Your task to perform on an android device: turn off translation in the chrome app Image 0: 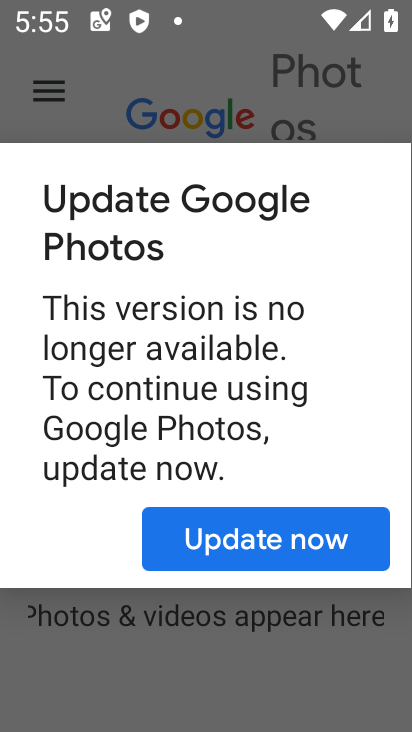
Step 0: press home button
Your task to perform on an android device: turn off translation in the chrome app Image 1: 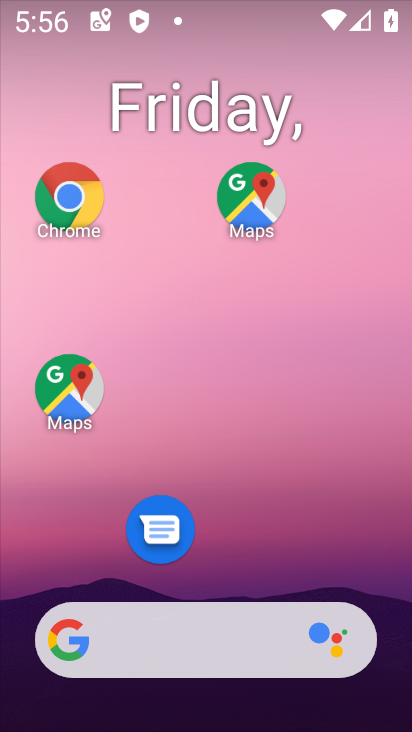
Step 1: click (74, 211)
Your task to perform on an android device: turn off translation in the chrome app Image 2: 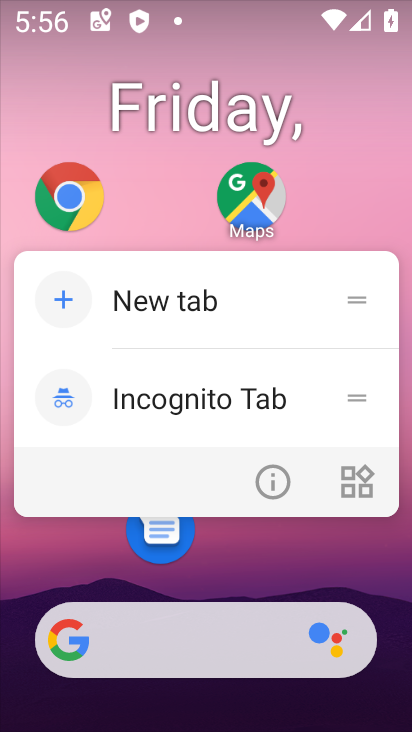
Step 2: click (76, 197)
Your task to perform on an android device: turn off translation in the chrome app Image 3: 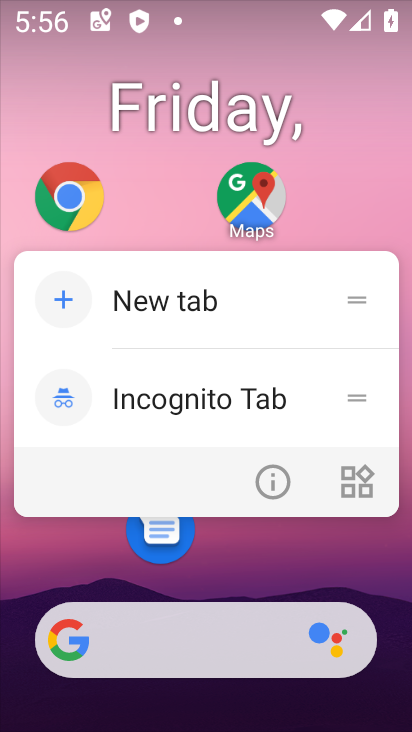
Step 3: click (76, 197)
Your task to perform on an android device: turn off translation in the chrome app Image 4: 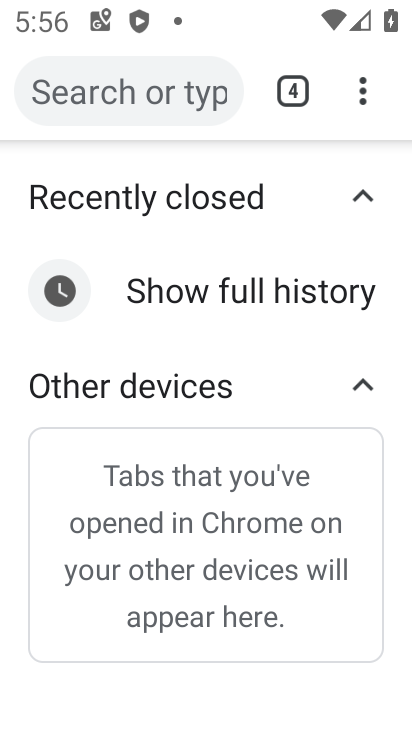
Step 4: click (361, 99)
Your task to perform on an android device: turn off translation in the chrome app Image 5: 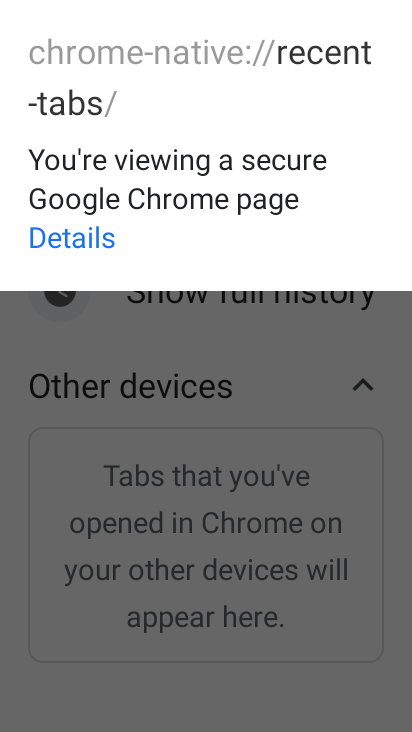
Step 5: click (172, 348)
Your task to perform on an android device: turn off translation in the chrome app Image 6: 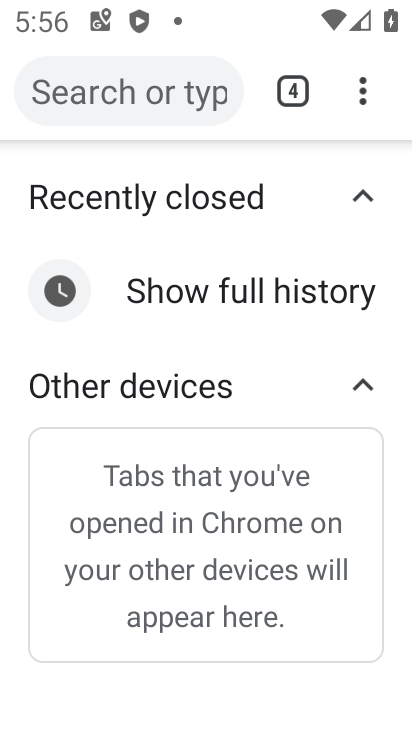
Step 6: click (364, 103)
Your task to perform on an android device: turn off translation in the chrome app Image 7: 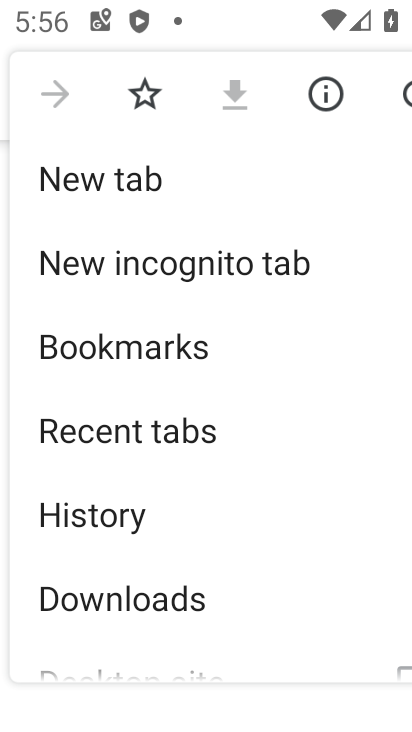
Step 7: drag from (205, 620) to (225, 215)
Your task to perform on an android device: turn off translation in the chrome app Image 8: 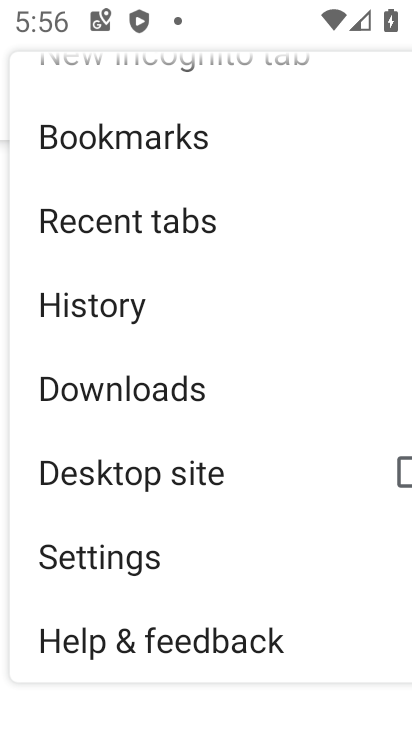
Step 8: click (112, 555)
Your task to perform on an android device: turn off translation in the chrome app Image 9: 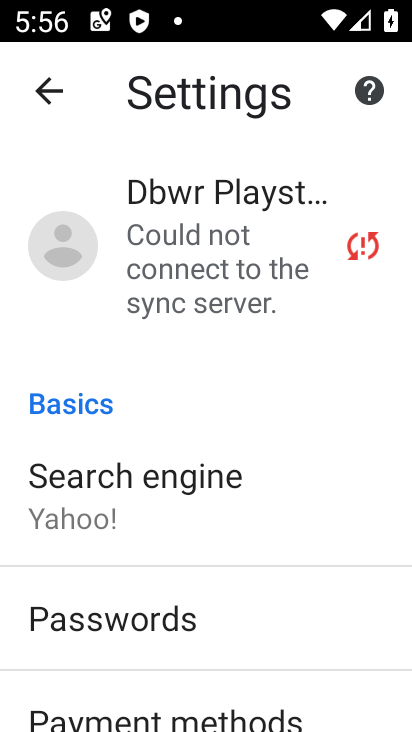
Step 9: drag from (145, 662) to (226, 268)
Your task to perform on an android device: turn off translation in the chrome app Image 10: 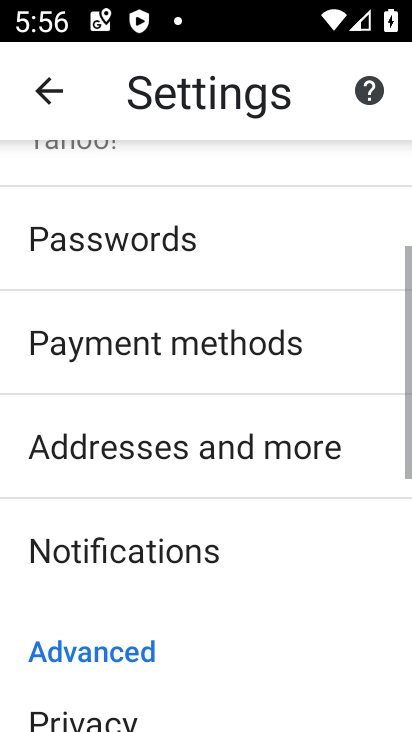
Step 10: drag from (194, 598) to (252, 194)
Your task to perform on an android device: turn off translation in the chrome app Image 11: 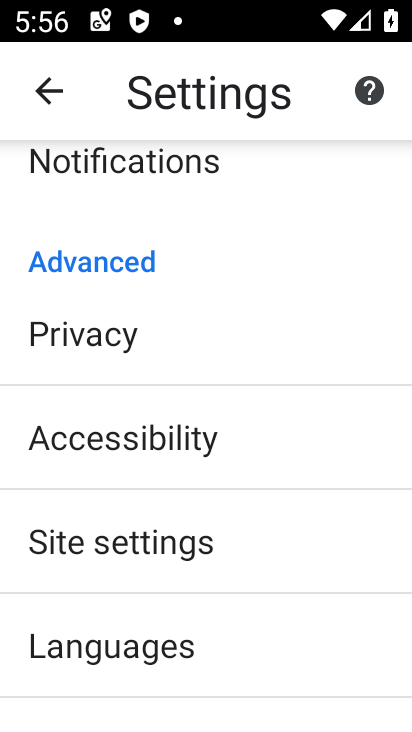
Step 11: drag from (253, 391) to (268, 301)
Your task to perform on an android device: turn off translation in the chrome app Image 12: 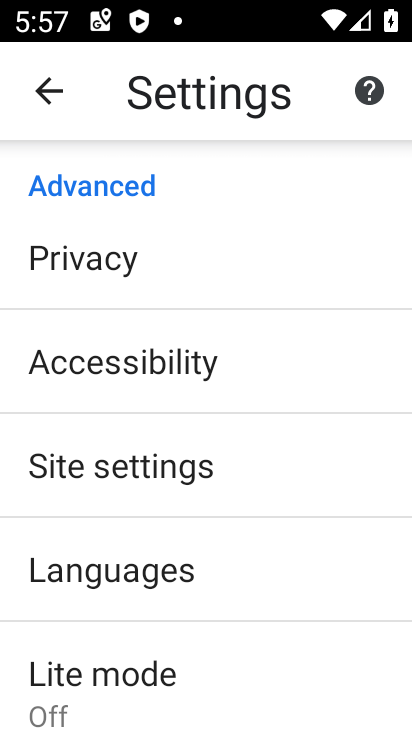
Step 12: click (191, 569)
Your task to perform on an android device: turn off translation in the chrome app Image 13: 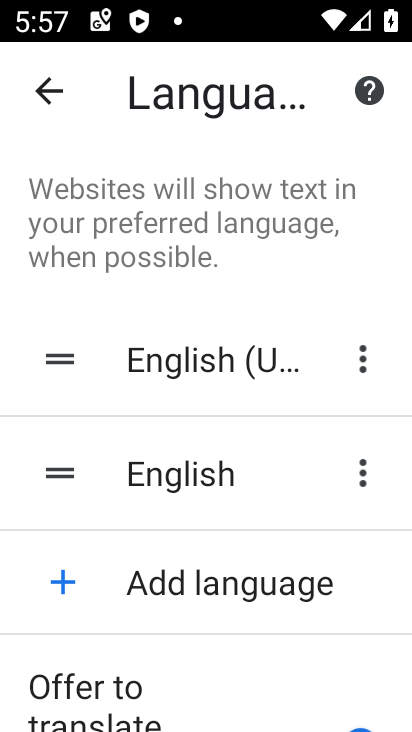
Step 13: drag from (270, 667) to (335, 282)
Your task to perform on an android device: turn off translation in the chrome app Image 14: 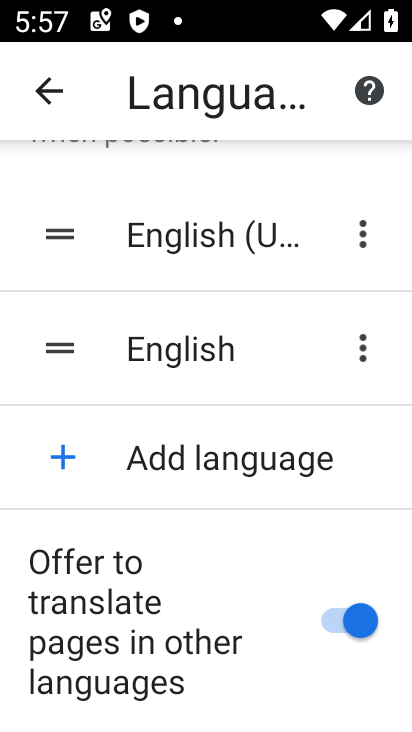
Step 14: click (333, 623)
Your task to perform on an android device: turn off translation in the chrome app Image 15: 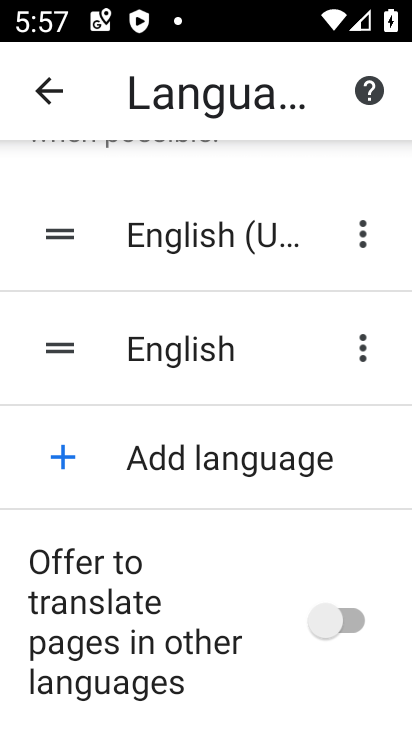
Step 15: task complete